Your task to perform on an android device: toggle pop-ups in chrome Image 0: 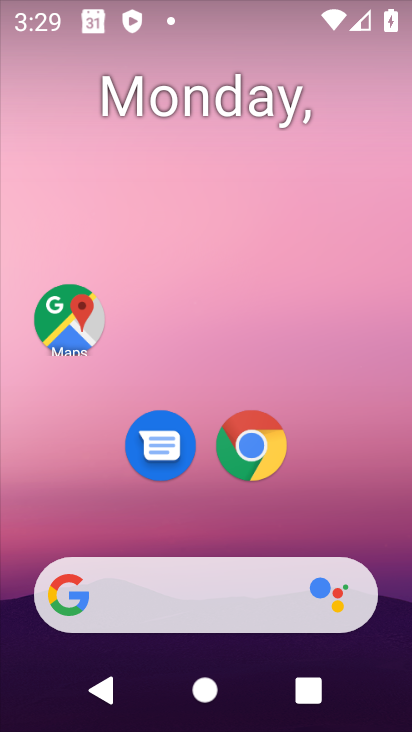
Step 0: drag from (361, 481) to (409, 266)
Your task to perform on an android device: toggle pop-ups in chrome Image 1: 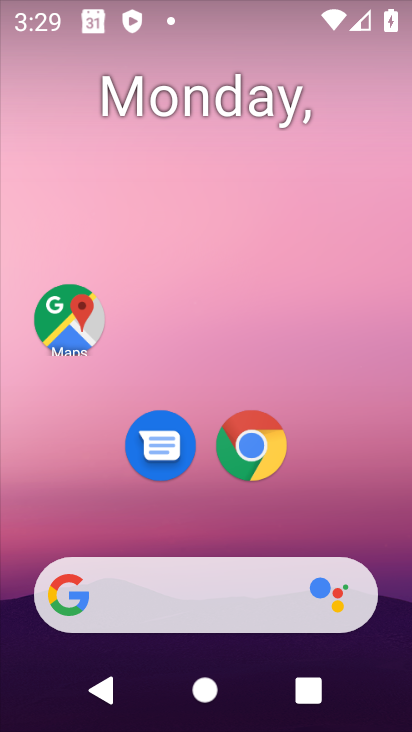
Step 1: drag from (318, 517) to (407, 14)
Your task to perform on an android device: toggle pop-ups in chrome Image 2: 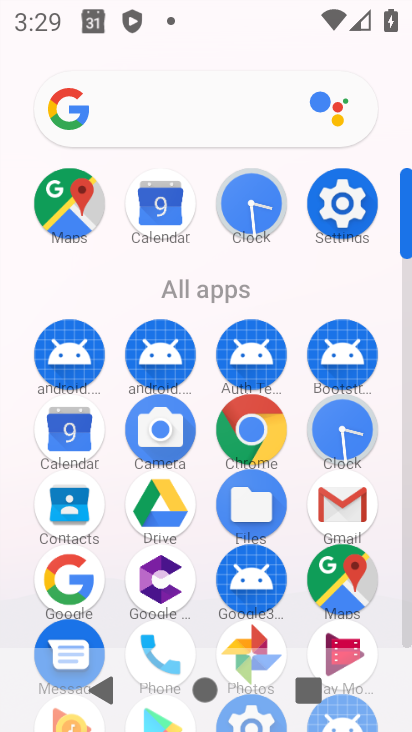
Step 2: click (252, 436)
Your task to perform on an android device: toggle pop-ups in chrome Image 3: 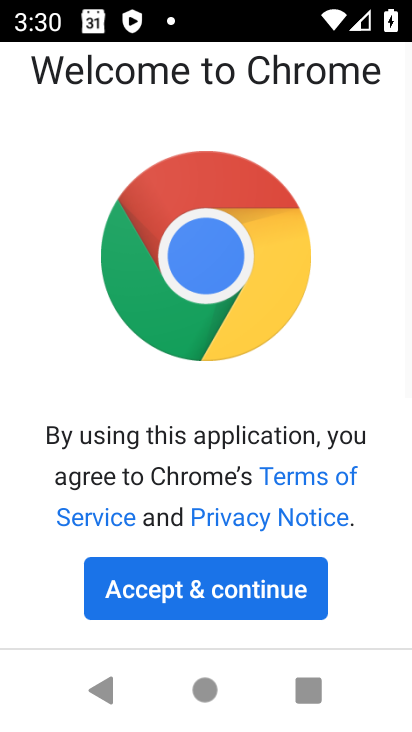
Step 3: click (295, 580)
Your task to perform on an android device: toggle pop-ups in chrome Image 4: 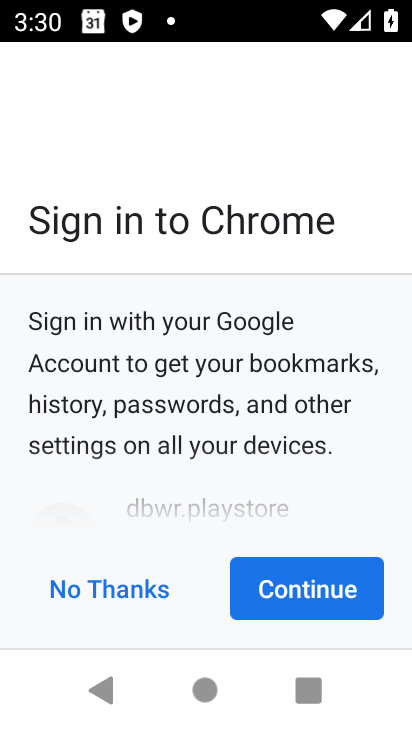
Step 4: click (295, 580)
Your task to perform on an android device: toggle pop-ups in chrome Image 5: 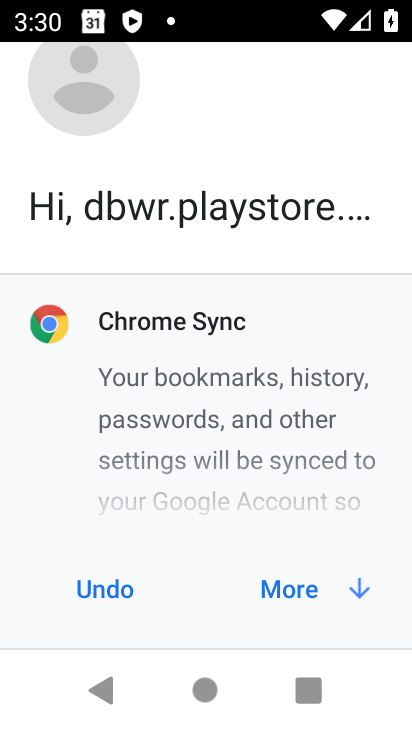
Step 5: click (295, 580)
Your task to perform on an android device: toggle pop-ups in chrome Image 6: 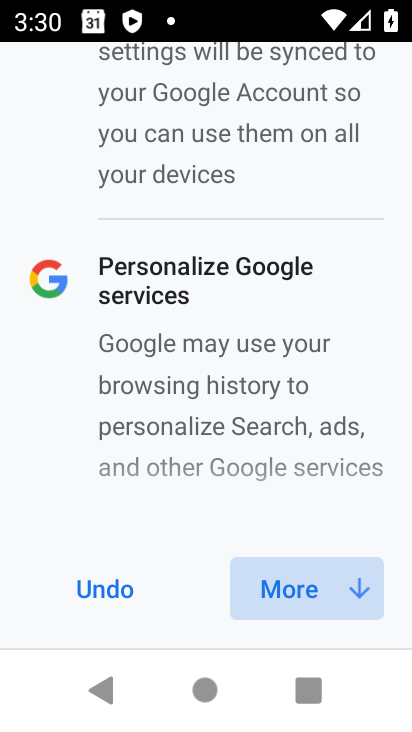
Step 6: click (295, 580)
Your task to perform on an android device: toggle pop-ups in chrome Image 7: 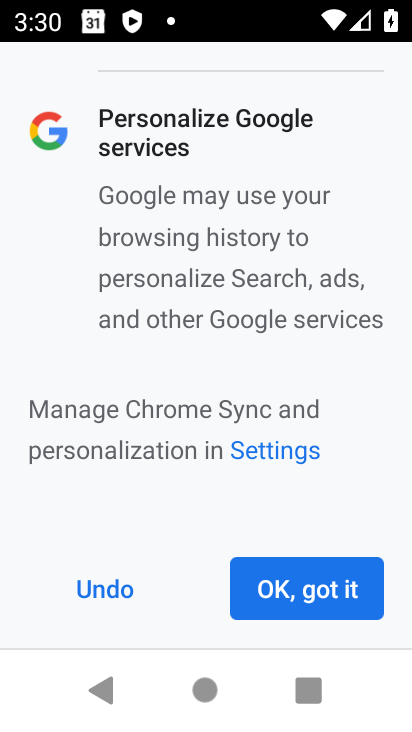
Step 7: click (282, 573)
Your task to perform on an android device: toggle pop-ups in chrome Image 8: 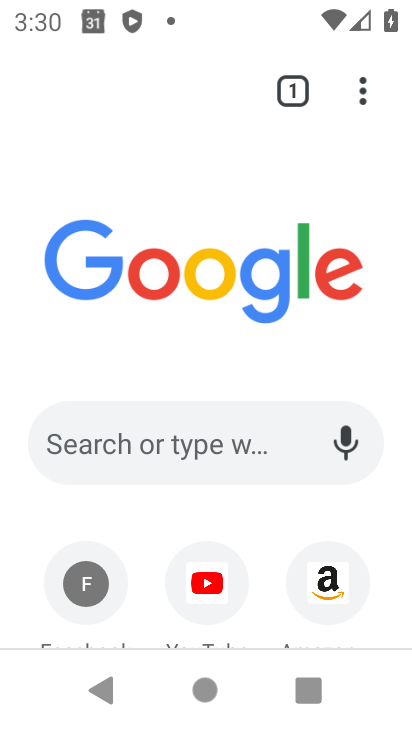
Step 8: drag from (353, 77) to (208, 472)
Your task to perform on an android device: toggle pop-ups in chrome Image 9: 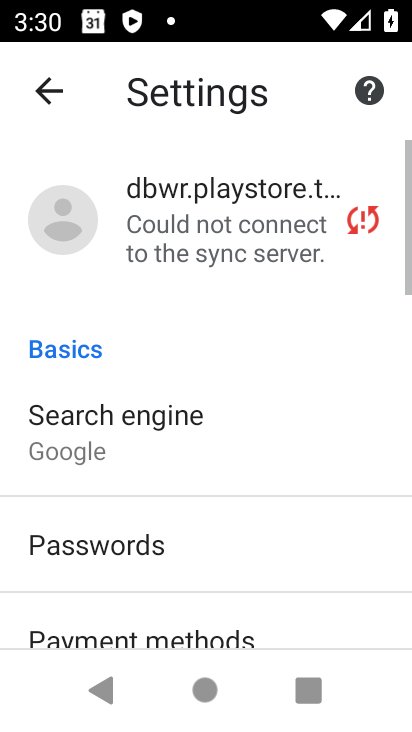
Step 9: drag from (275, 596) to (244, 240)
Your task to perform on an android device: toggle pop-ups in chrome Image 10: 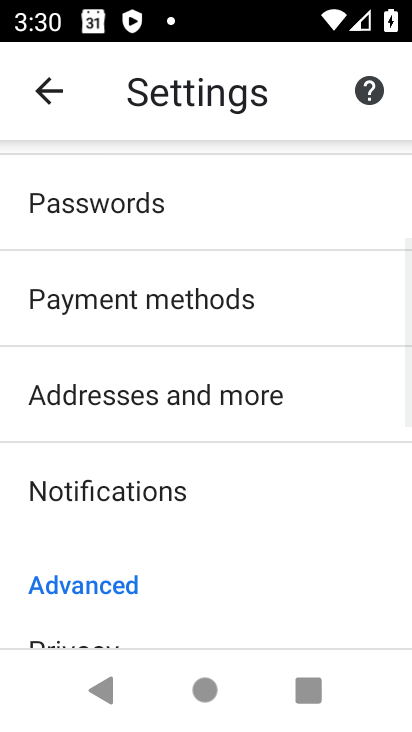
Step 10: drag from (328, 622) to (306, 332)
Your task to perform on an android device: toggle pop-ups in chrome Image 11: 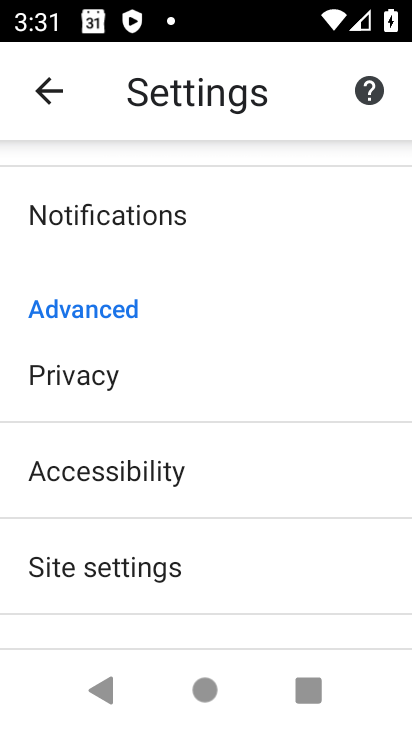
Step 11: drag from (240, 590) to (280, 412)
Your task to perform on an android device: toggle pop-ups in chrome Image 12: 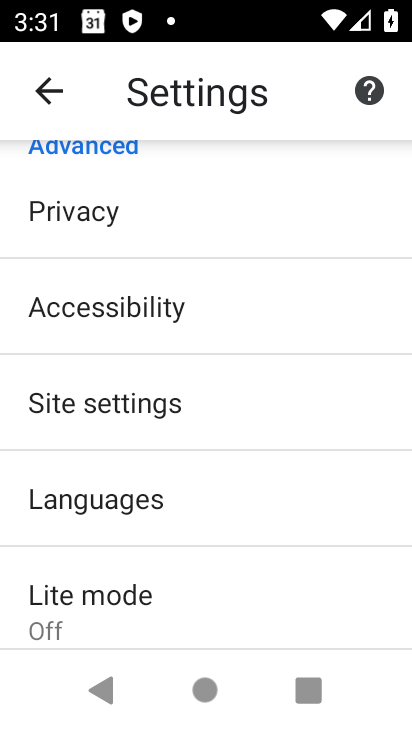
Step 12: drag from (196, 570) to (265, 319)
Your task to perform on an android device: toggle pop-ups in chrome Image 13: 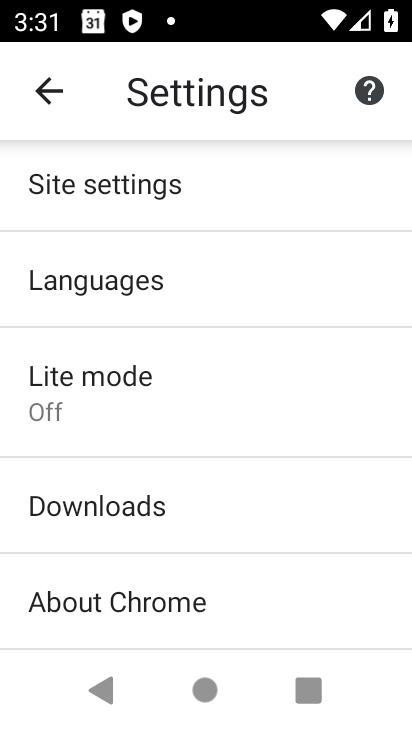
Step 13: click (286, 217)
Your task to perform on an android device: toggle pop-ups in chrome Image 14: 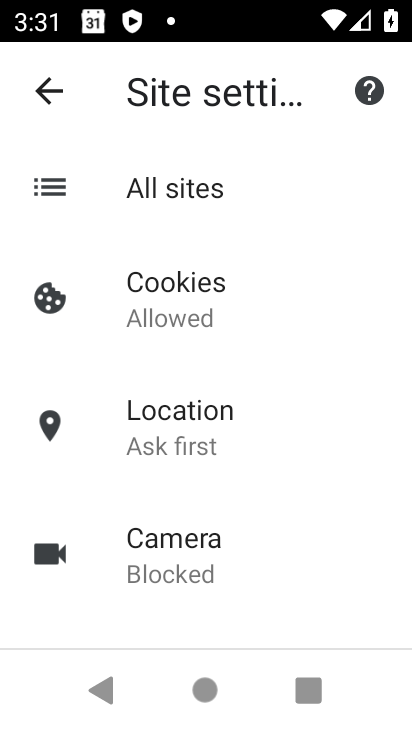
Step 14: drag from (186, 554) to (314, 287)
Your task to perform on an android device: toggle pop-ups in chrome Image 15: 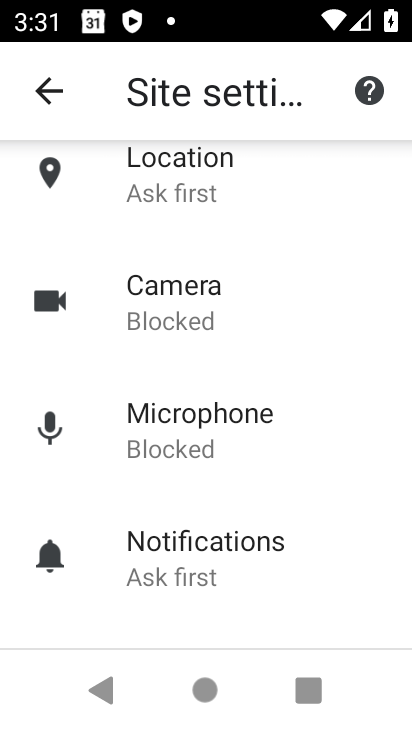
Step 15: drag from (224, 532) to (320, 253)
Your task to perform on an android device: toggle pop-ups in chrome Image 16: 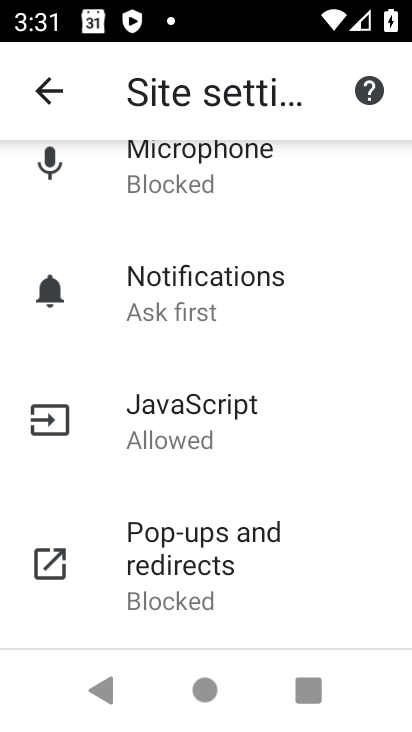
Step 16: click (216, 524)
Your task to perform on an android device: toggle pop-ups in chrome Image 17: 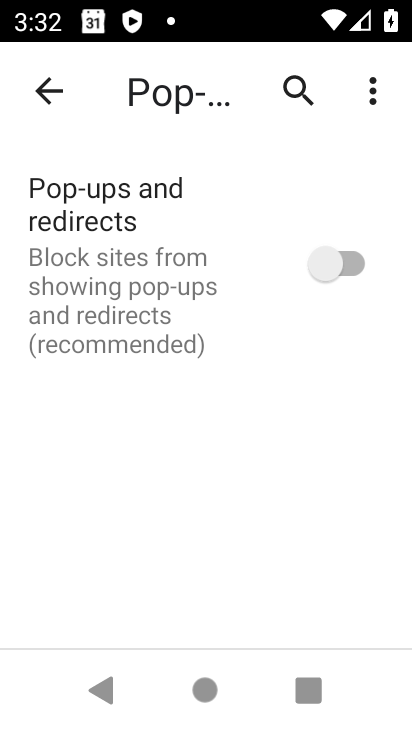
Step 17: click (223, 323)
Your task to perform on an android device: toggle pop-ups in chrome Image 18: 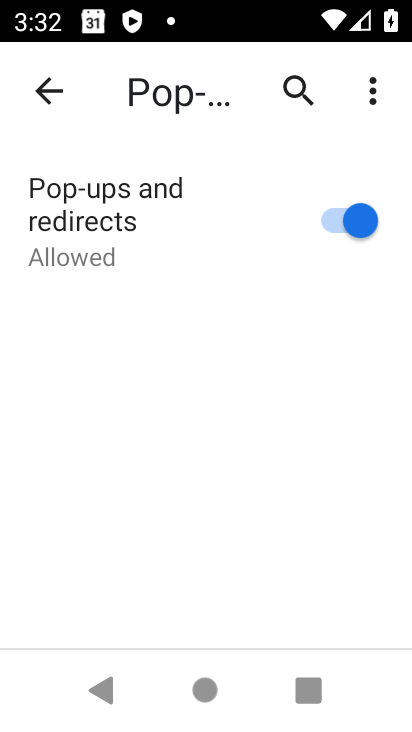
Step 18: task complete